Your task to perform on an android device: Find coffee shops on Maps Image 0: 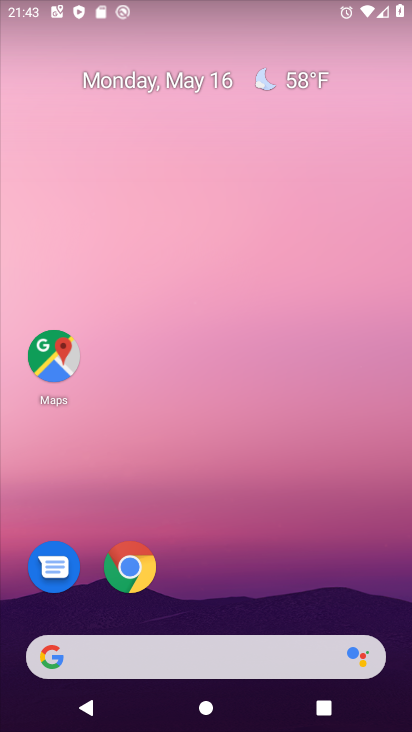
Step 0: click (70, 362)
Your task to perform on an android device: Find coffee shops on Maps Image 1: 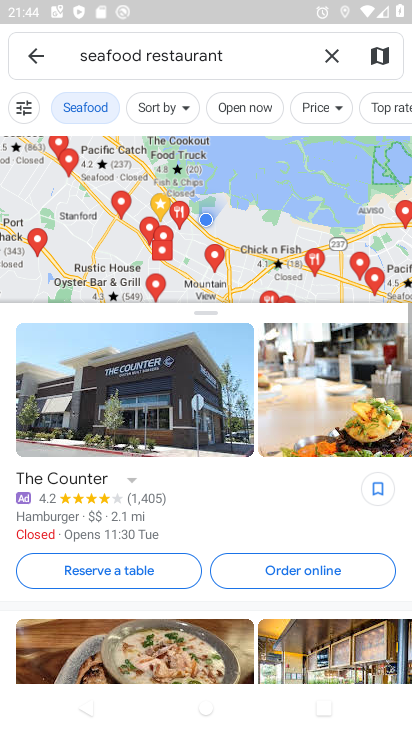
Step 1: click (330, 60)
Your task to perform on an android device: Find coffee shops on Maps Image 2: 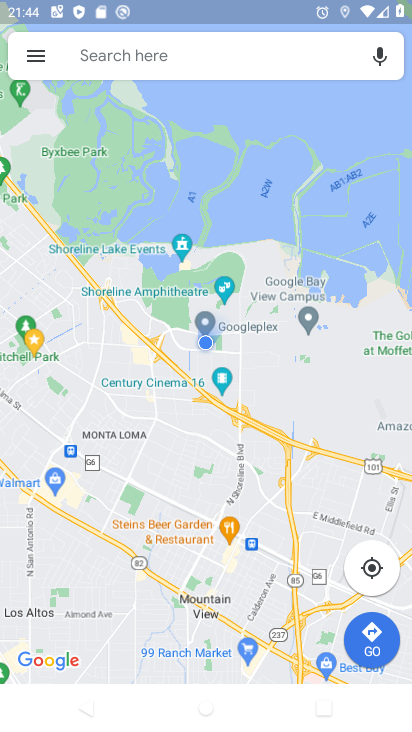
Step 2: click (189, 48)
Your task to perform on an android device: Find coffee shops on Maps Image 3: 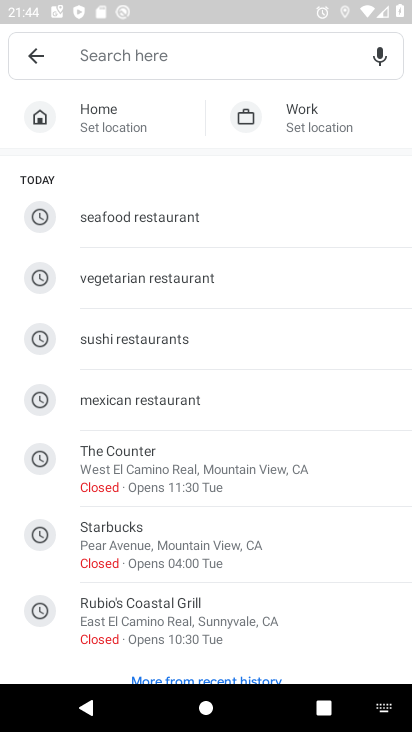
Step 3: type "coffee shops "
Your task to perform on an android device: Find coffee shops on Maps Image 4: 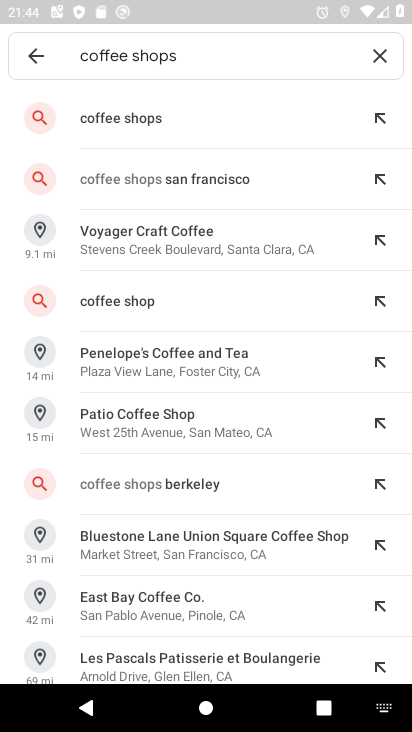
Step 4: click (226, 111)
Your task to perform on an android device: Find coffee shops on Maps Image 5: 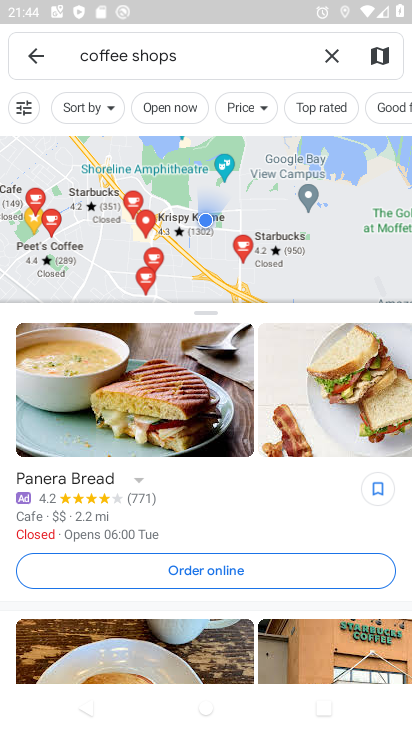
Step 5: task complete